Your task to perform on an android device: show emergency info Image 0: 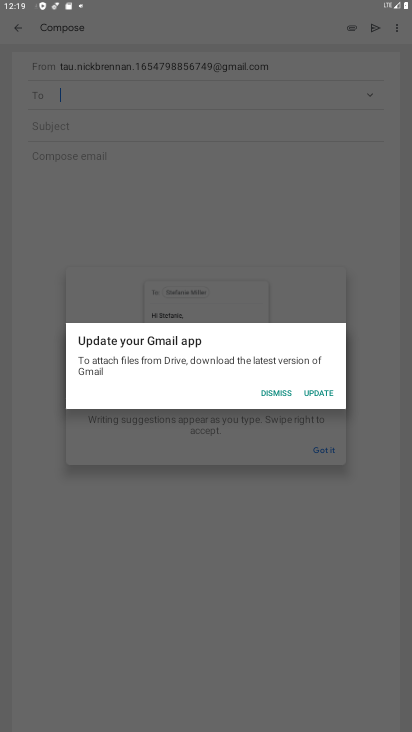
Step 0: press home button
Your task to perform on an android device: show emergency info Image 1: 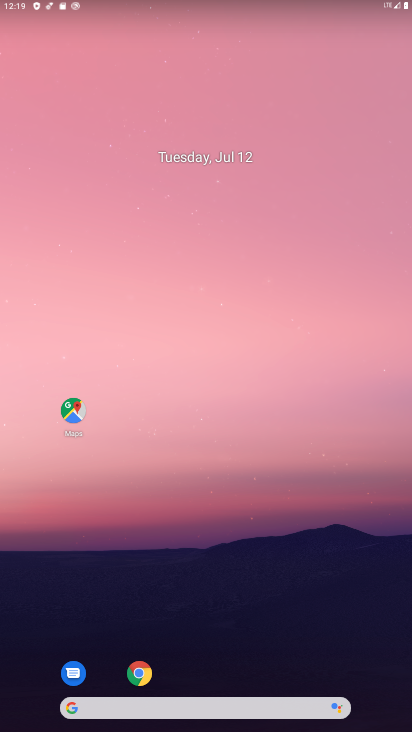
Step 1: drag from (248, 324) to (186, 100)
Your task to perform on an android device: show emergency info Image 2: 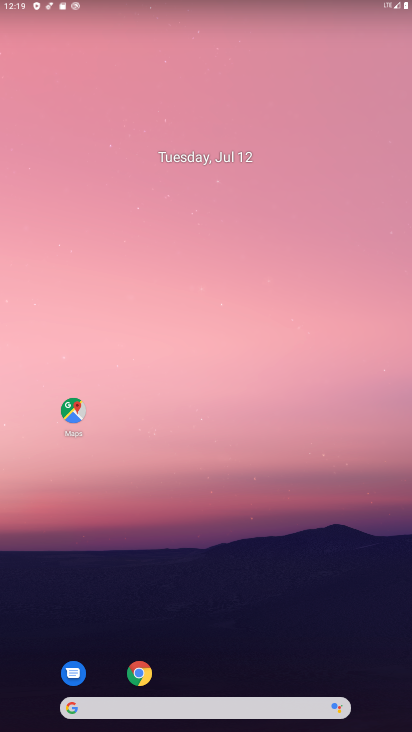
Step 2: drag from (242, 659) to (233, 181)
Your task to perform on an android device: show emergency info Image 3: 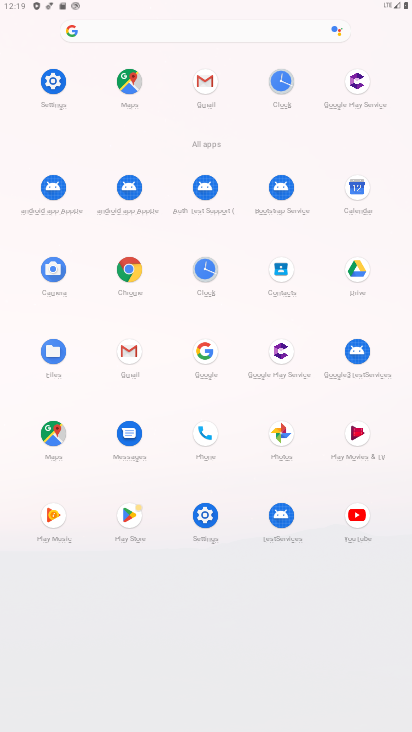
Step 3: click (52, 78)
Your task to perform on an android device: show emergency info Image 4: 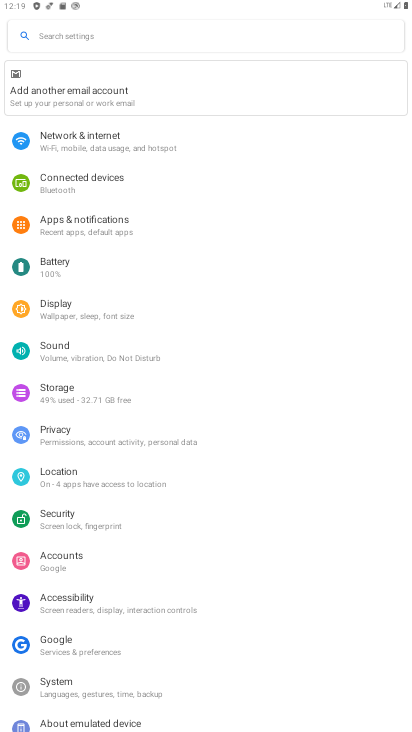
Step 4: drag from (187, 681) to (188, 354)
Your task to perform on an android device: show emergency info Image 5: 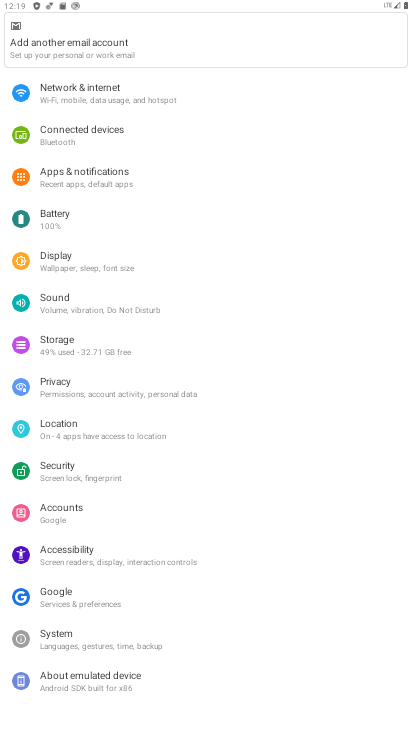
Step 5: click (121, 662)
Your task to perform on an android device: show emergency info Image 6: 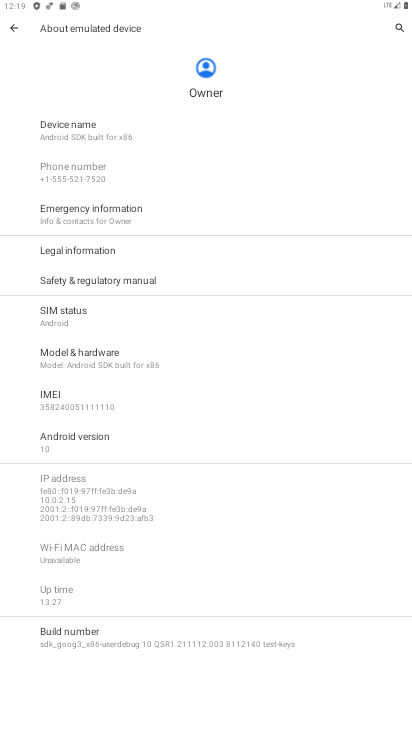
Step 6: click (261, 221)
Your task to perform on an android device: show emergency info Image 7: 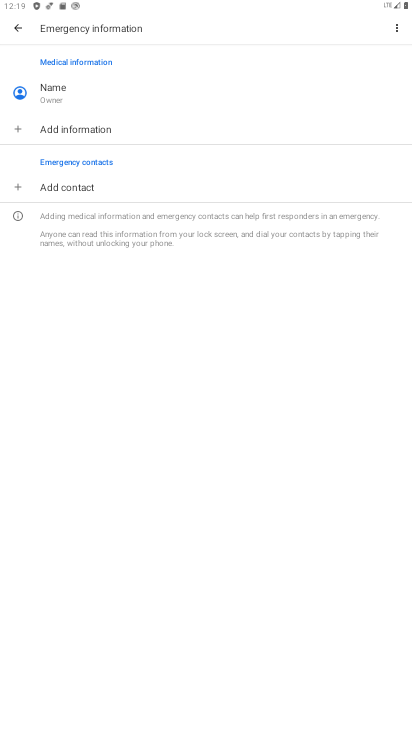
Step 7: task complete